Your task to perform on an android device: Open Amazon Image 0: 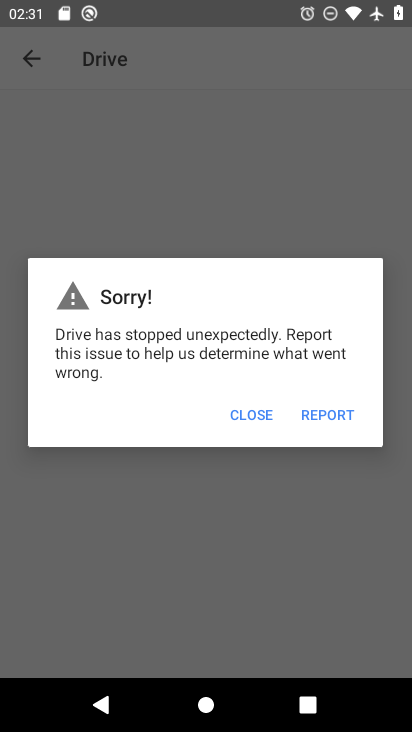
Step 0: press home button
Your task to perform on an android device: Open Amazon Image 1: 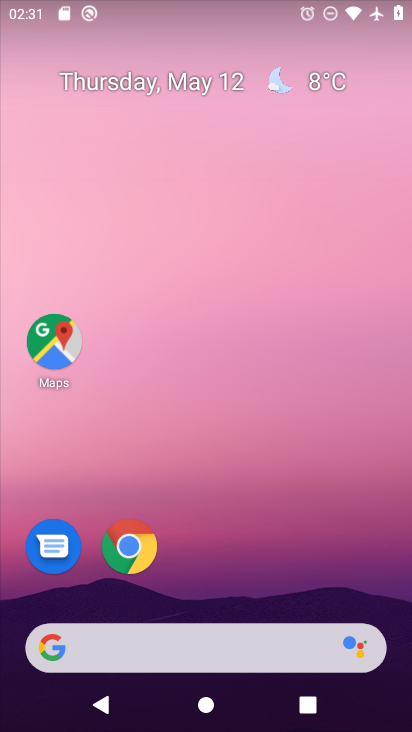
Step 1: drag from (159, 657) to (300, 143)
Your task to perform on an android device: Open Amazon Image 2: 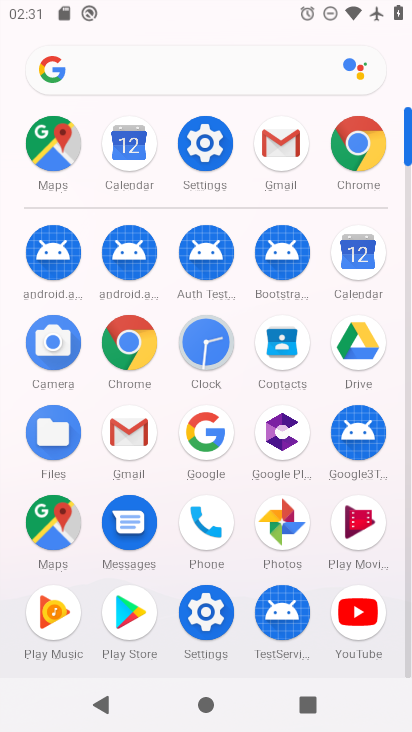
Step 2: click (361, 155)
Your task to perform on an android device: Open Amazon Image 3: 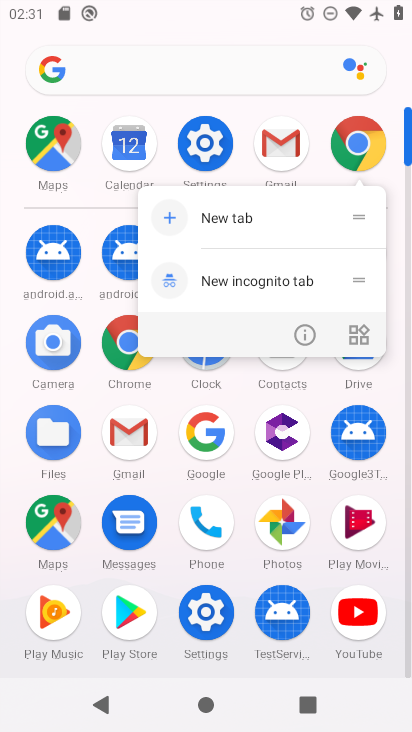
Step 3: click (359, 153)
Your task to perform on an android device: Open Amazon Image 4: 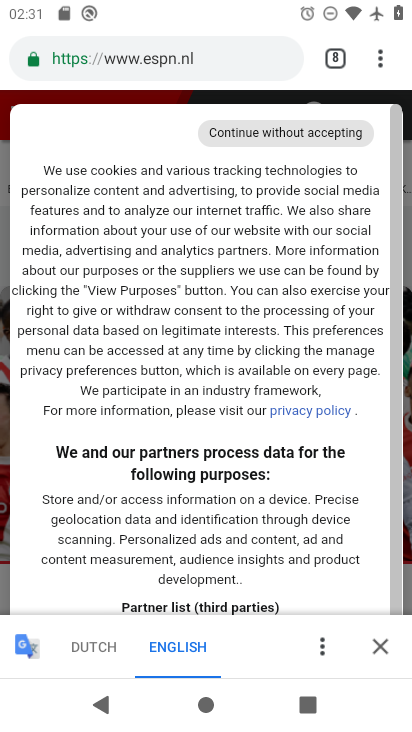
Step 4: drag from (376, 72) to (213, 119)
Your task to perform on an android device: Open Amazon Image 5: 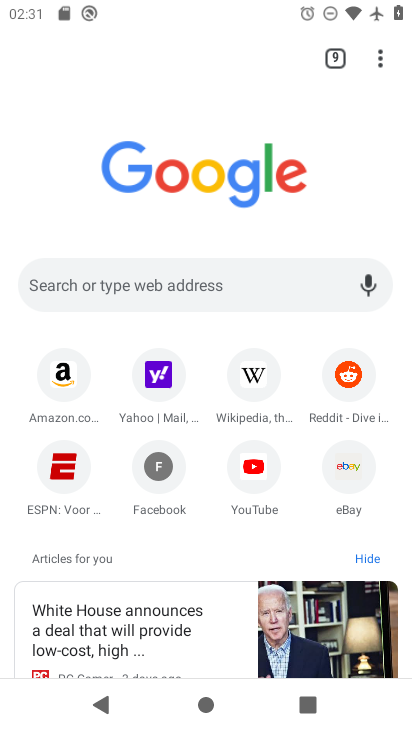
Step 5: click (64, 374)
Your task to perform on an android device: Open Amazon Image 6: 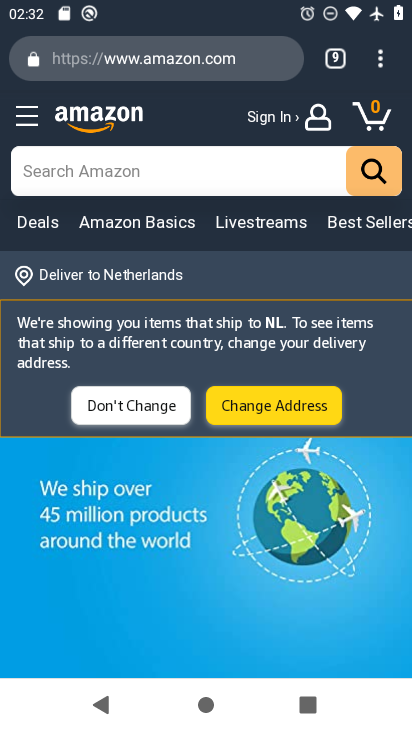
Step 6: task complete